Your task to perform on an android device: When is my next appointment? Image 0: 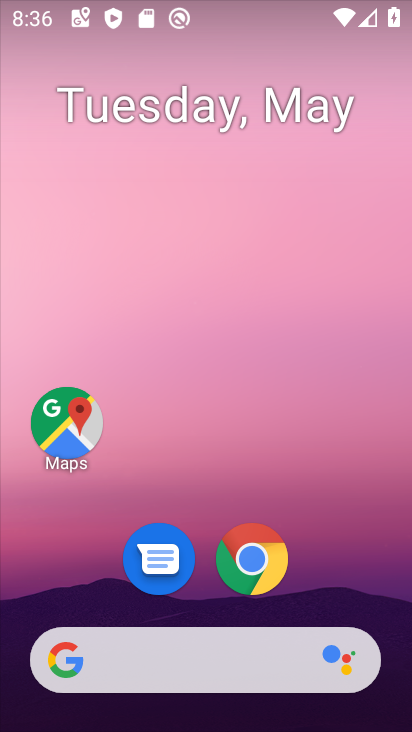
Step 0: drag from (227, 651) to (248, 239)
Your task to perform on an android device: When is my next appointment? Image 1: 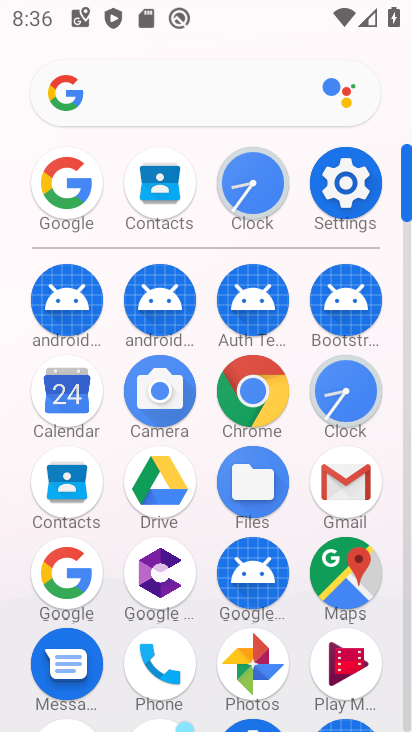
Step 1: click (58, 387)
Your task to perform on an android device: When is my next appointment? Image 2: 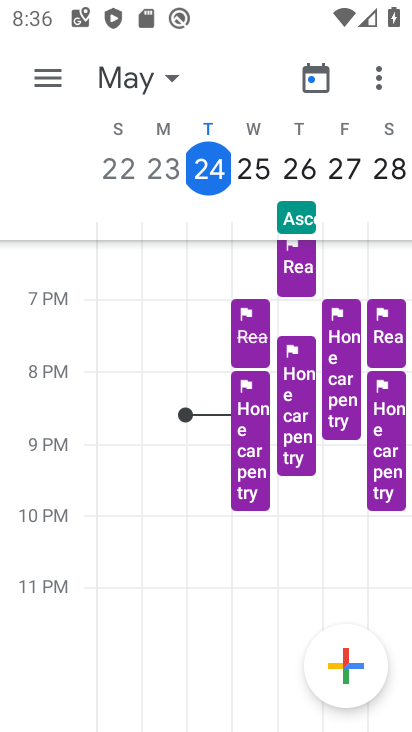
Step 2: click (43, 94)
Your task to perform on an android device: When is my next appointment? Image 3: 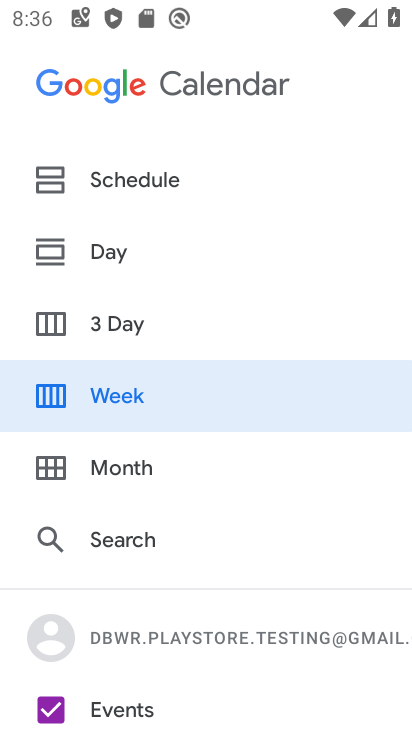
Step 3: click (131, 162)
Your task to perform on an android device: When is my next appointment? Image 4: 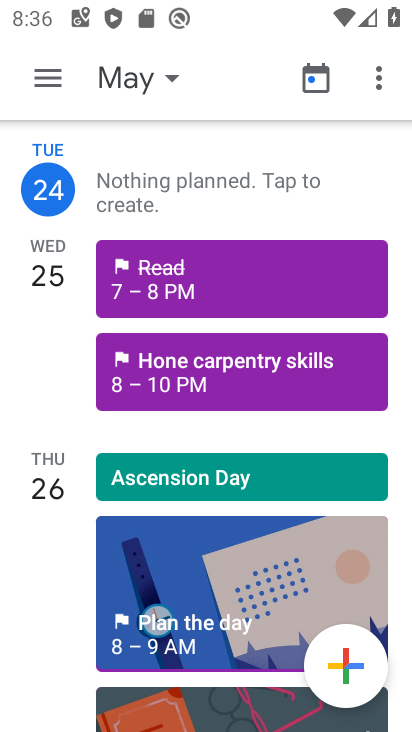
Step 4: task complete